Your task to perform on an android device: turn on data saver in the chrome app Image 0: 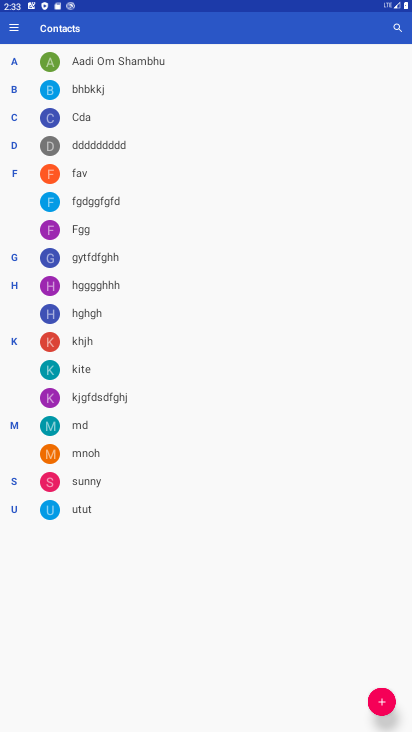
Step 0: drag from (197, 654) to (235, 398)
Your task to perform on an android device: turn on data saver in the chrome app Image 1: 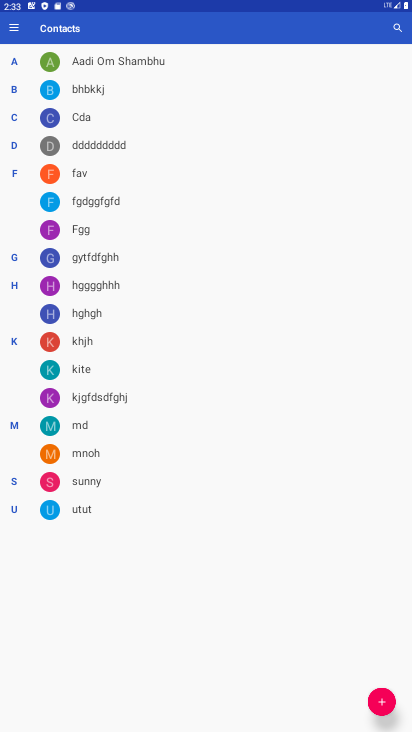
Step 1: press home button
Your task to perform on an android device: turn on data saver in the chrome app Image 2: 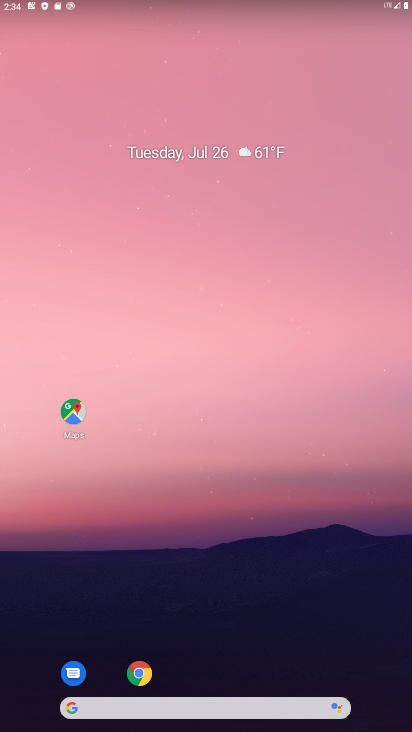
Step 2: drag from (217, 530) to (320, 109)
Your task to perform on an android device: turn on data saver in the chrome app Image 3: 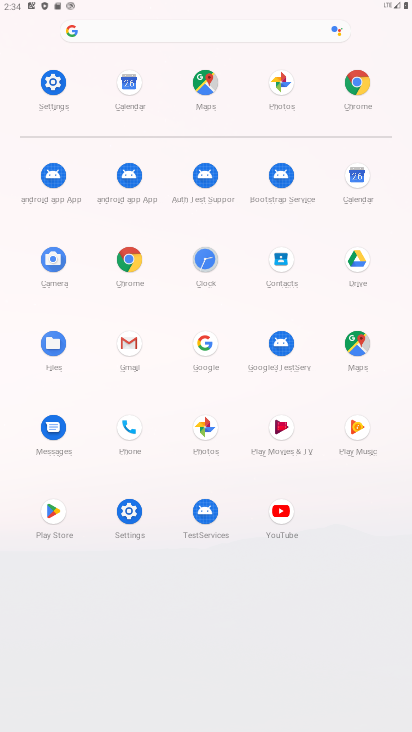
Step 3: click (133, 519)
Your task to perform on an android device: turn on data saver in the chrome app Image 4: 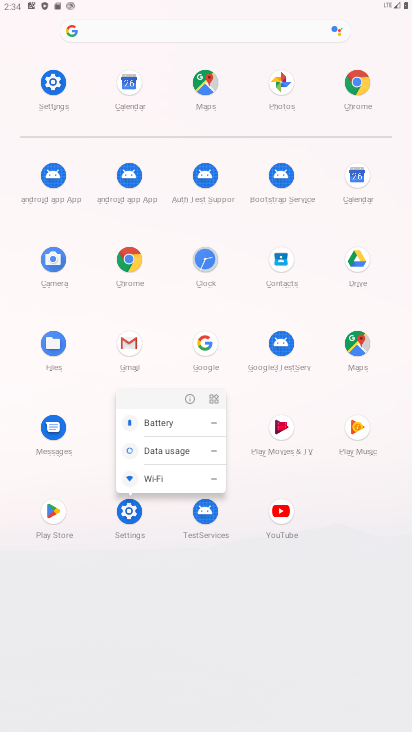
Step 4: click (186, 389)
Your task to perform on an android device: turn on data saver in the chrome app Image 5: 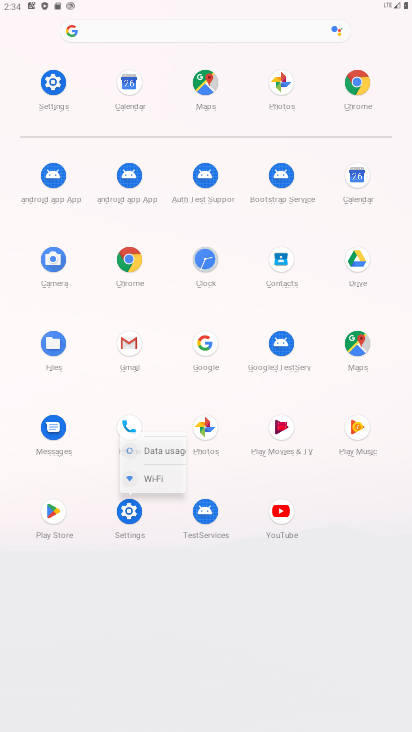
Step 5: click (186, 389)
Your task to perform on an android device: turn on data saver in the chrome app Image 6: 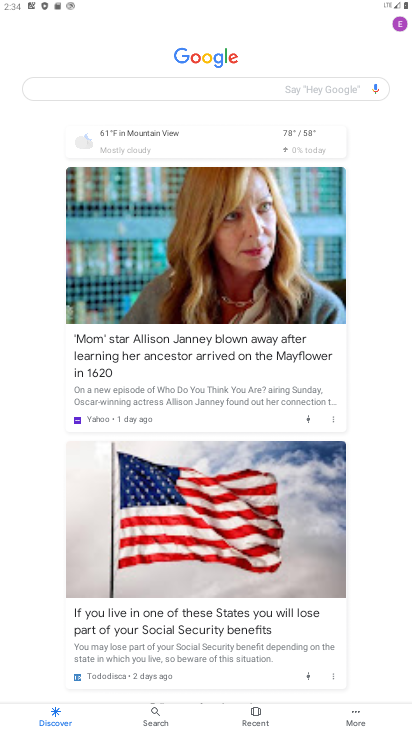
Step 6: drag from (224, 639) to (314, 303)
Your task to perform on an android device: turn on data saver in the chrome app Image 7: 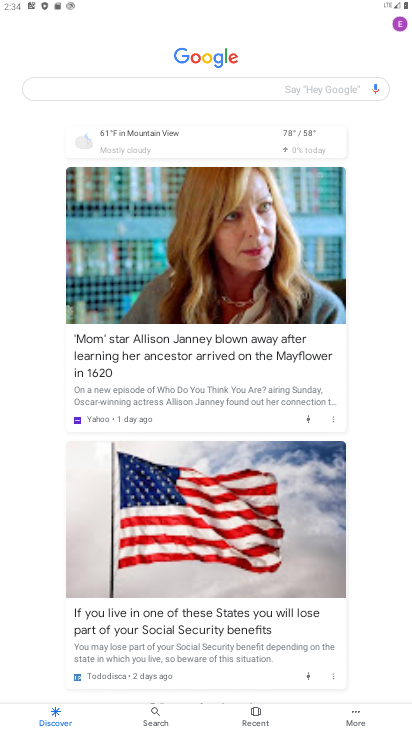
Step 7: drag from (241, 163) to (288, 560)
Your task to perform on an android device: turn on data saver in the chrome app Image 8: 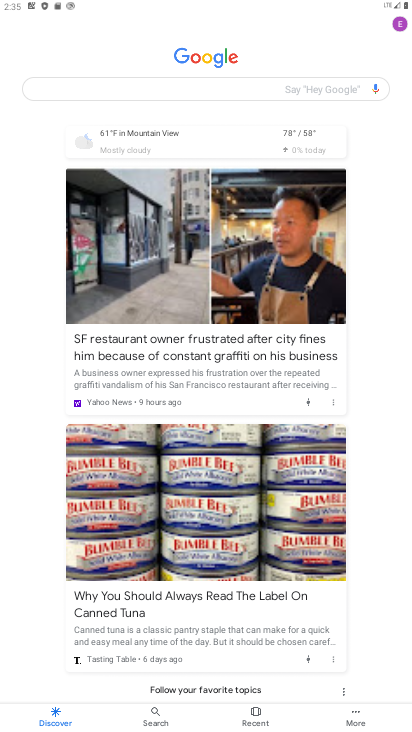
Step 8: click (348, 710)
Your task to perform on an android device: turn on data saver in the chrome app Image 9: 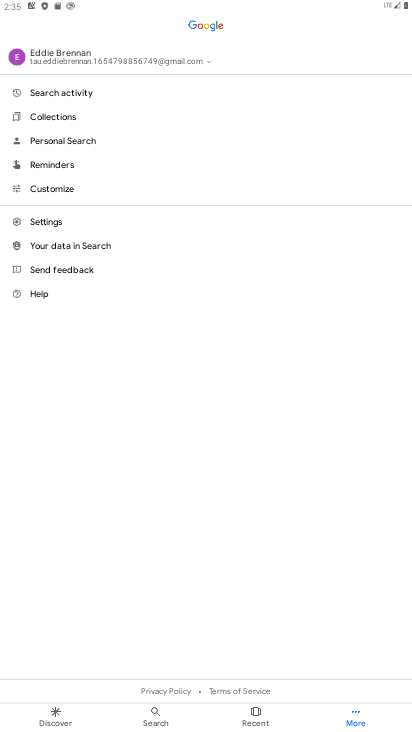
Step 9: click (35, 220)
Your task to perform on an android device: turn on data saver in the chrome app Image 10: 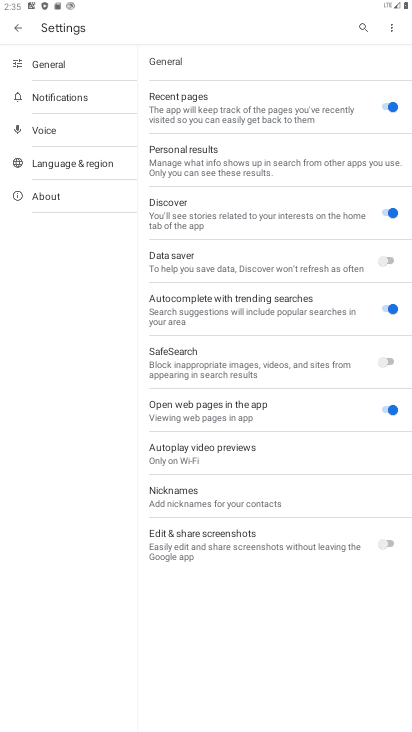
Step 10: click (92, 202)
Your task to perform on an android device: turn on data saver in the chrome app Image 11: 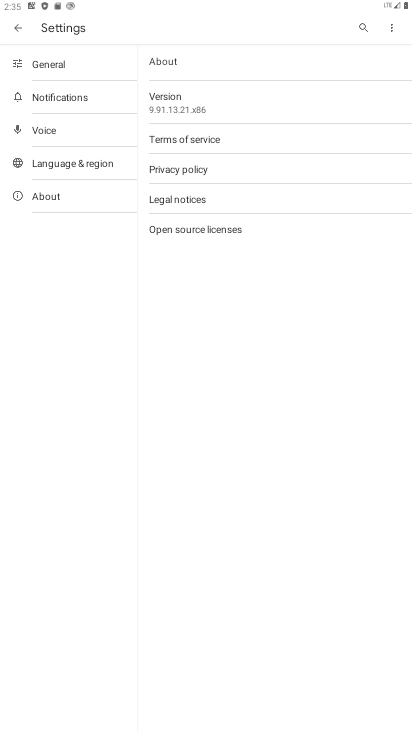
Step 11: click (81, 54)
Your task to perform on an android device: turn on data saver in the chrome app Image 12: 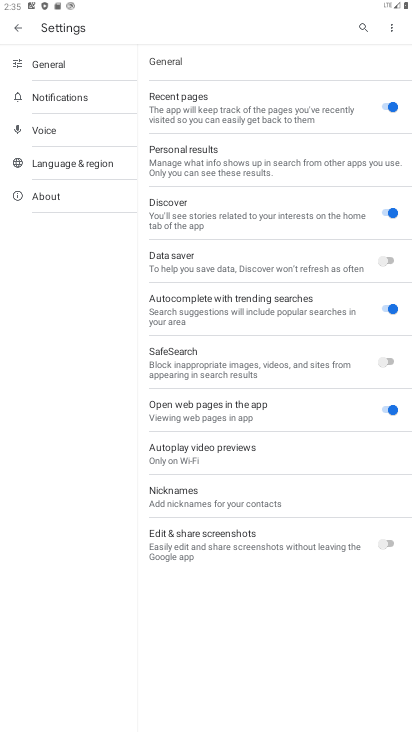
Step 12: press home button
Your task to perform on an android device: turn on data saver in the chrome app Image 13: 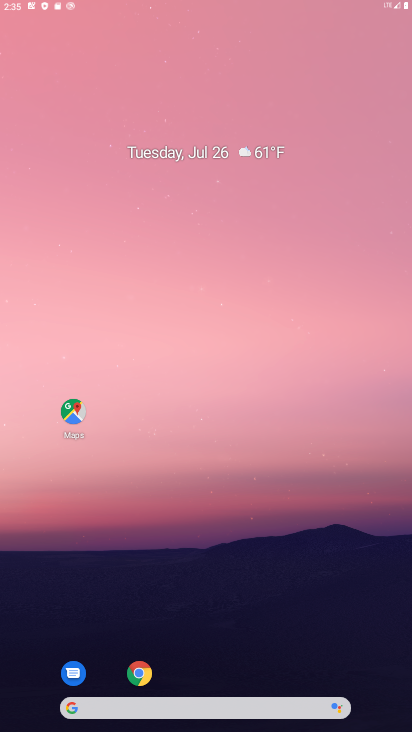
Step 13: drag from (172, 609) to (267, 49)
Your task to perform on an android device: turn on data saver in the chrome app Image 14: 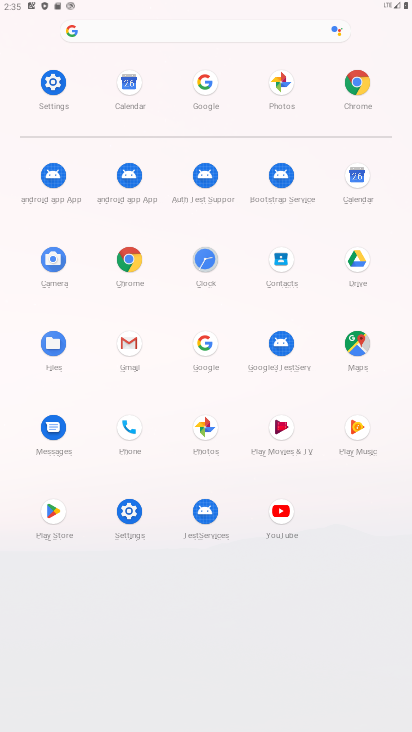
Step 14: click (126, 266)
Your task to perform on an android device: turn on data saver in the chrome app Image 15: 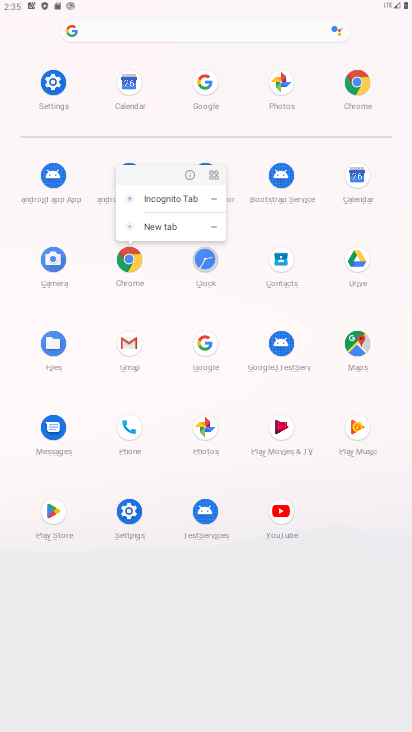
Step 15: click (183, 170)
Your task to perform on an android device: turn on data saver in the chrome app Image 16: 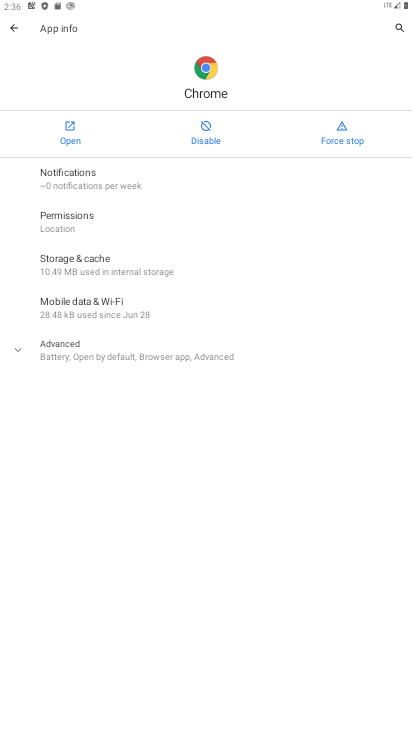
Step 16: click (72, 143)
Your task to perform on an android device: turn on data saver in the chrome app Image 17: 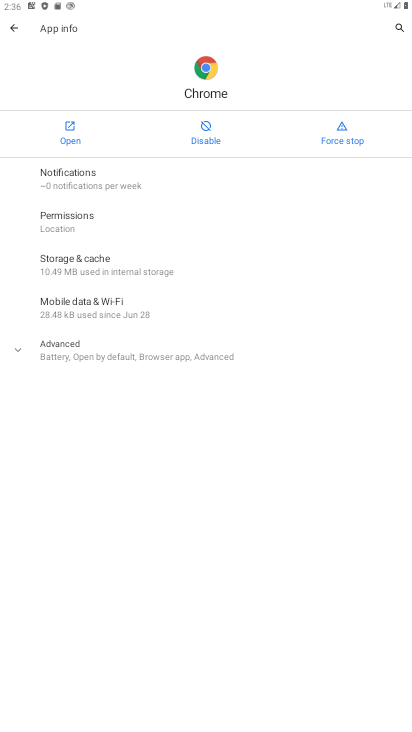
Step 17: click (73, 142)
Your task to perform on an android device: turn on data saver in the chrome app Image 18: 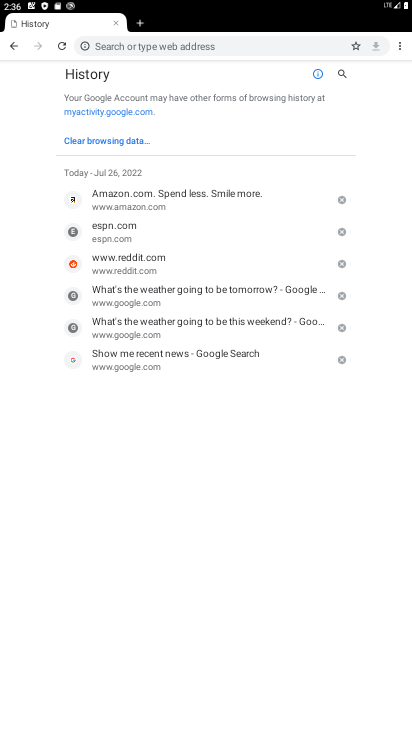
Step 18: drag from (395, 46) to (340, 215)
Your task to perform on an android device: turn on data saver in the chrome app Image 19: 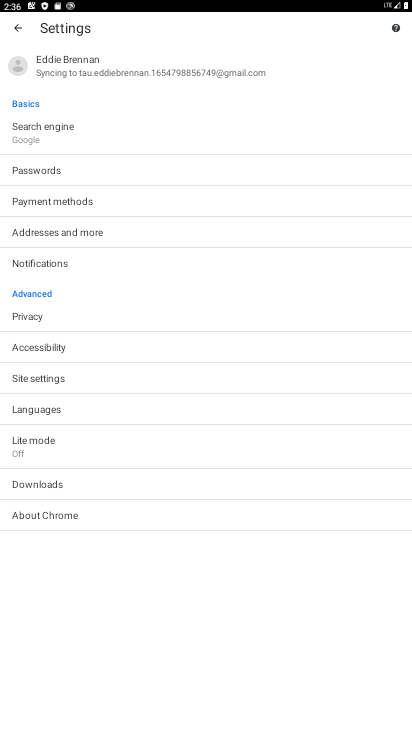
Step 19: click (61, 381)
Your task to perform on an android device: turn on data saver in the chrome app Image 20: 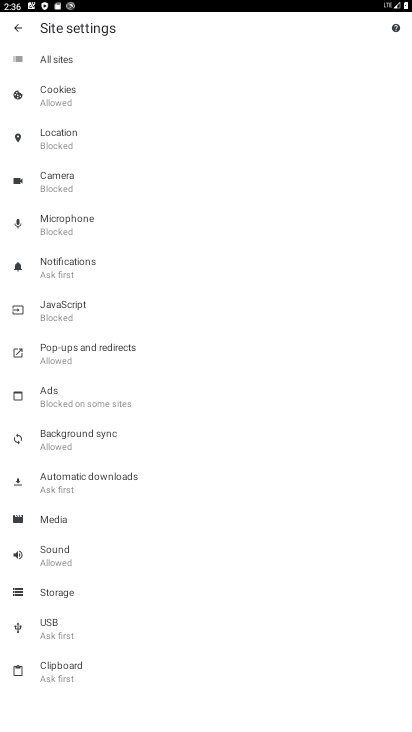
Step 20: drag from (193, 137) to (338, 686)
Your task to perform on an android device: turn on data saver in the chrome app Image 21: 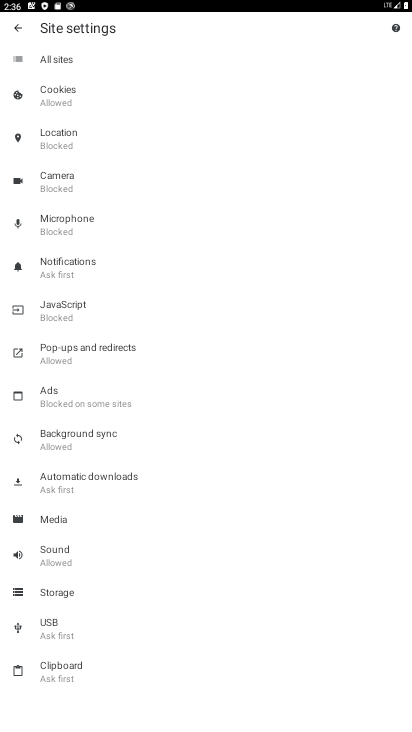
Step 21: drag from (218, 462) to (303, 159)
Your task to perform on an android device: turn on data saver in the chrome app Image 22: 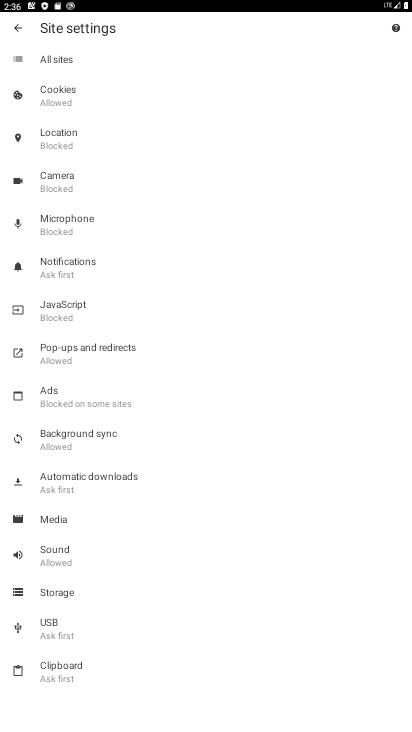
Step 22: click (21, 35)
Your task to perform on an android device: turn on data saver in the chrome app Image 23: 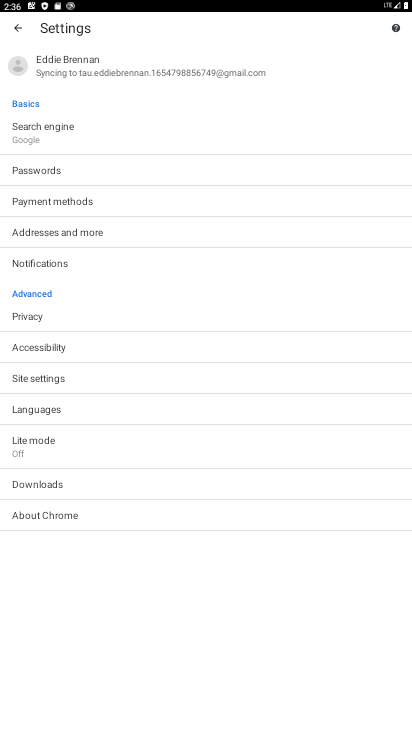
Step 23: click (81, 430)
Your task to perform on an android device: turn on data saver in the chrome app Image 24: 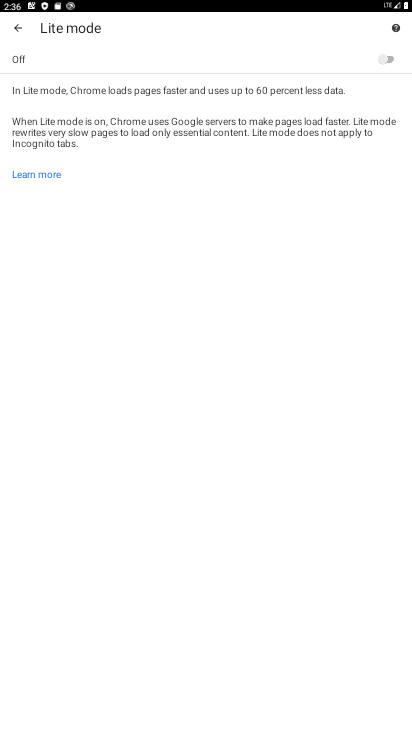
Step 24: click (363, 68)
Your task to perform on an android device: turn on data saver in the chrome app Image 25: 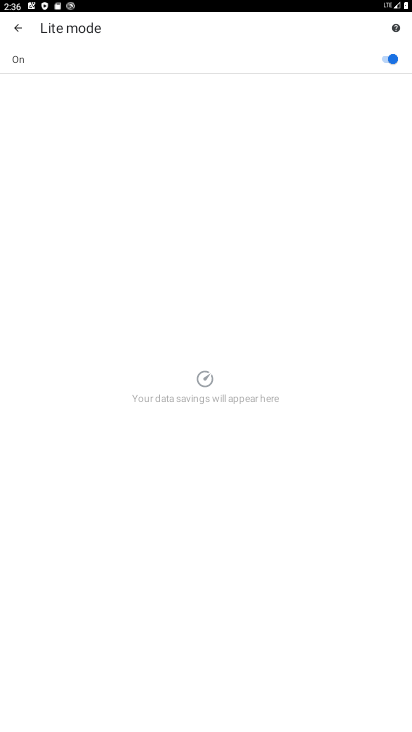
Step 25: task complete